Your task to perform on an android device: Is it going to rain today? Image 0: 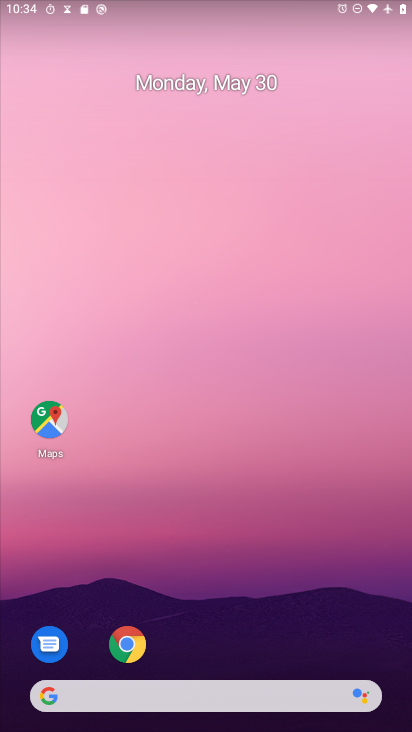
Step 0: drag from (218, 647) to (226, 44)
Your task to perform on an android device: Is it going to rain today? Image 1: 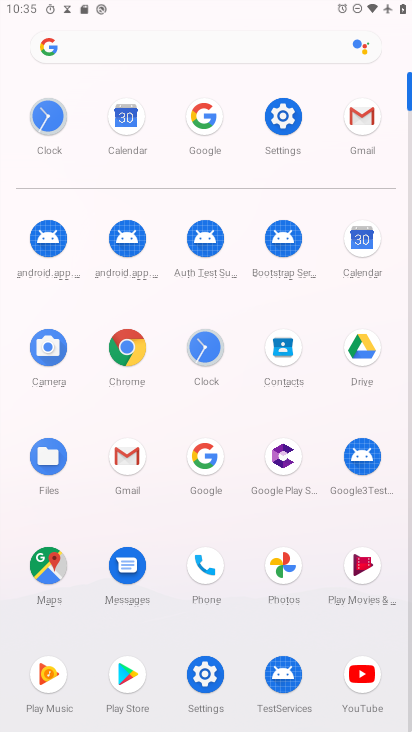
Step 1: click (204, 454)
Your task to perform on an android device: Is it going to rain today? Image 2: 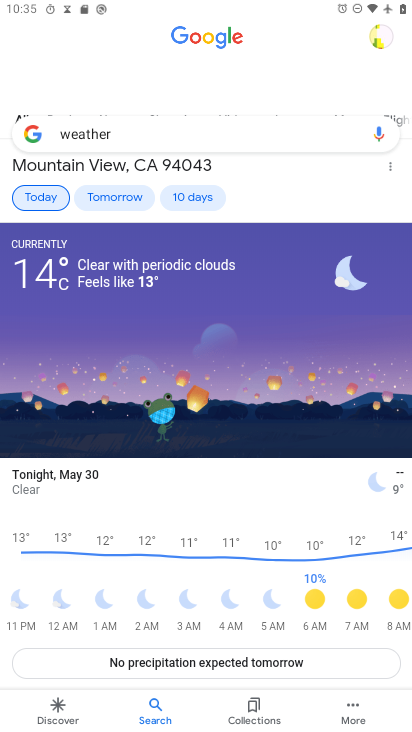
Step 2: click (190, 138)
Your task to perform on an android device: Is it going to rain today? Image 3: 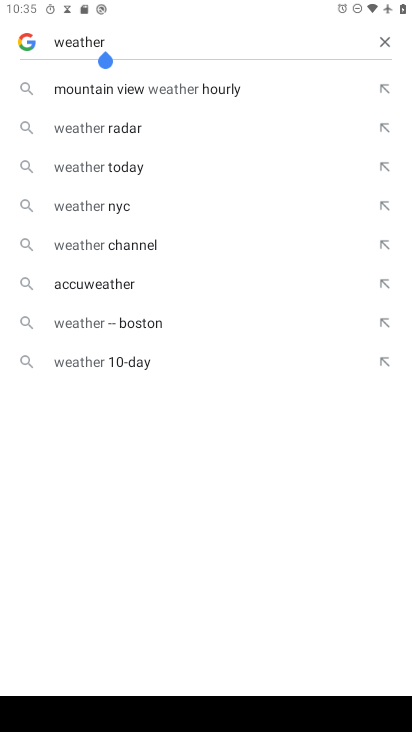
Step 3: click (378, 42)
Your task to perform on an android device: Is it going to rain today? Image 4: 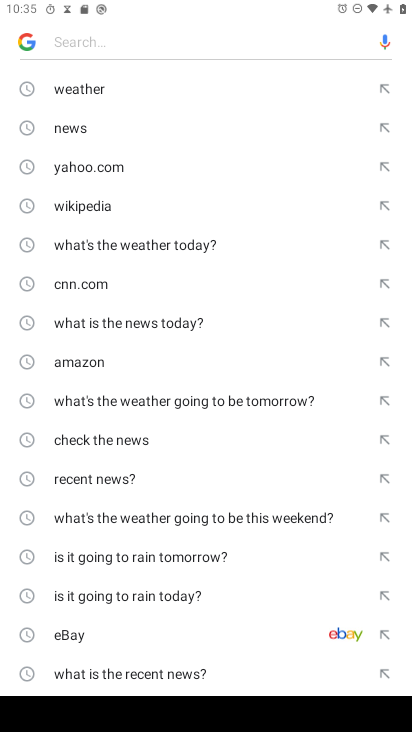
Step 4: click (162, 598)
Your task to perform on an android device: Is it going to rain today? Image 5: 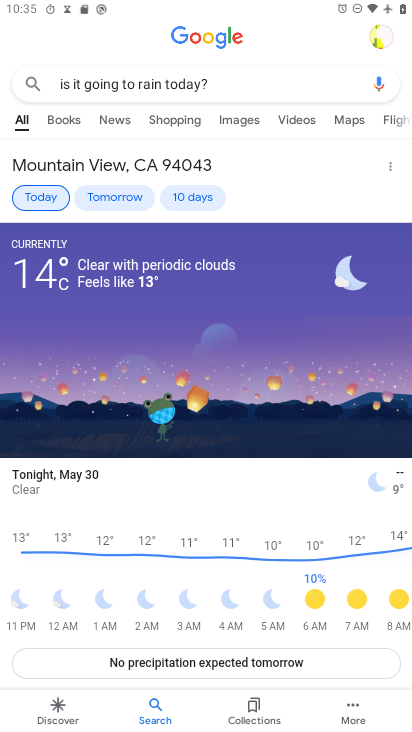
Step 5: task complete